Your task to perform on an android device: Toggle the flashlight Image 0: 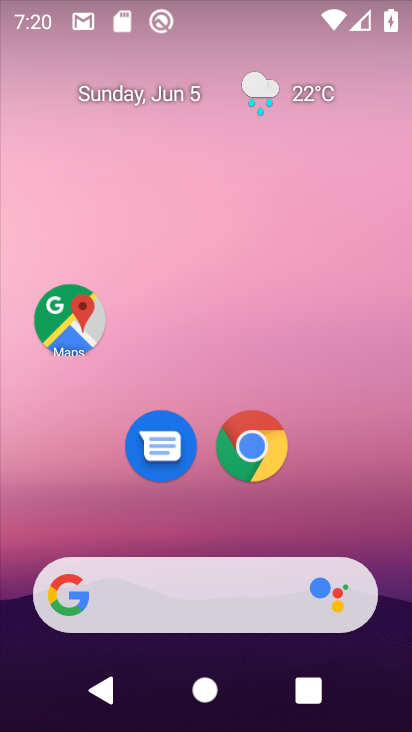
Step 0: drag from (179, 529) to (255, 165)
Your task to perform on an android device: Toggle the flashlight Image 1: 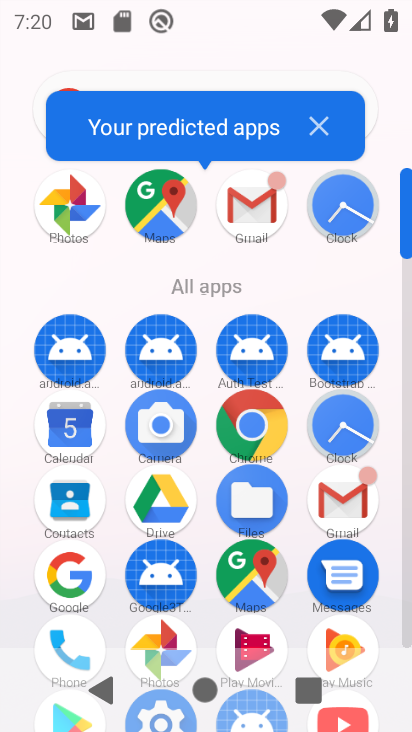
Step 1: drag from (229, 600) to (234, 402)
Your task to perform on an android device: Toggle the flashlight Image 2: 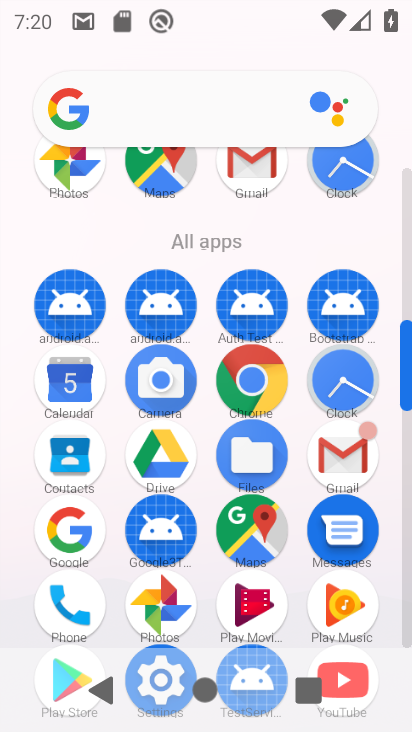
Step 2: click (159, 676)
Your task to perform on an android device: Toggle the flashlight Image 3: 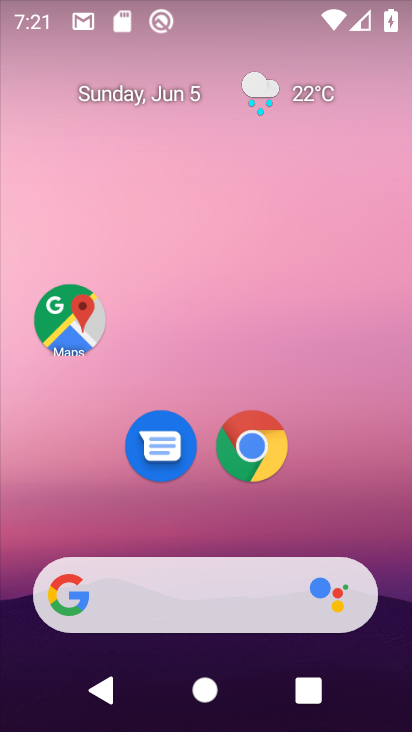
Step 3: drag from (204, 490) to (265, 63)
Your task to perform on an android device: Toggle the flashlight Image 4: 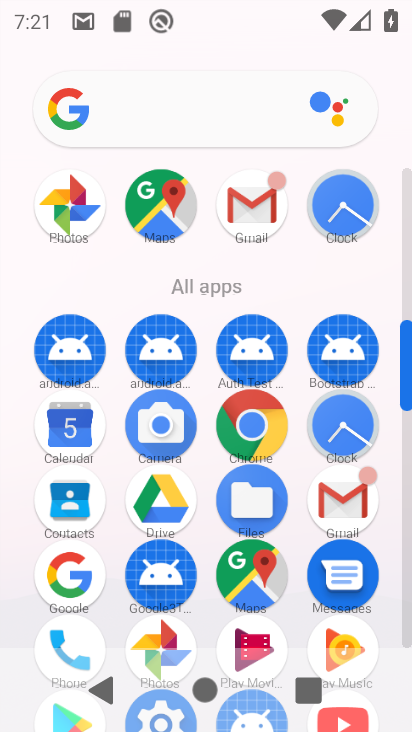
Step 4: drag from (213, 590) to (229, 354)
Your task to perform on an android device: Toggle the flashlight Image 5: 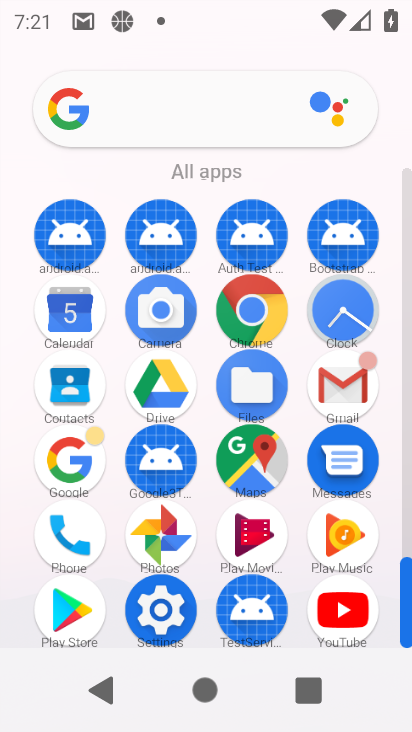
Step 5: click (165, 601)
Your task to perform on an android device: Toggle the flashlight Image 6: 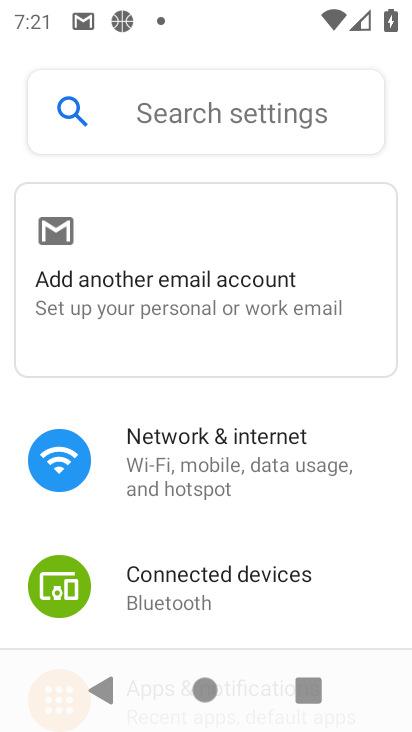
Step 6: drag from (205, 524) to (253, 154)
Your task to perform on an android device: Toggle the flashlight Image 7: 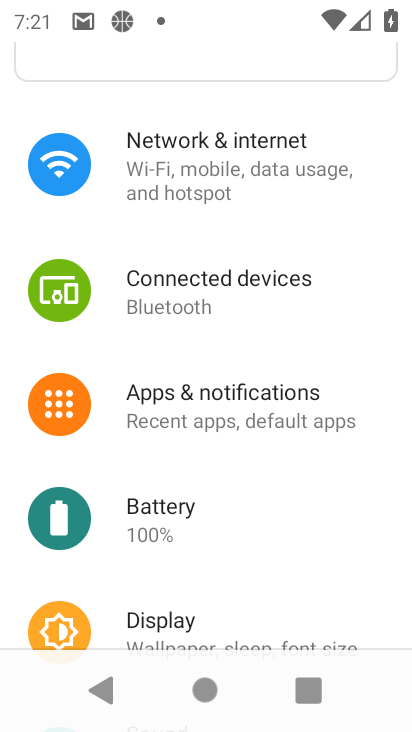
Step 7: click (165, 619)
Your task to perform on an android device: Toggle the flashlight Image 8: 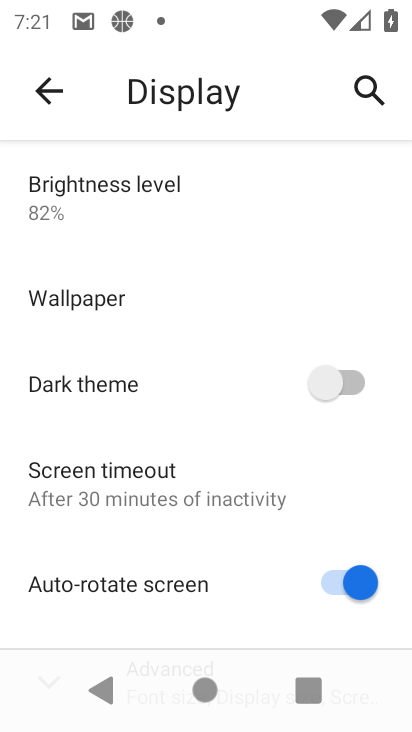
Step 8: task complete